Your task to perform on an android device: Open Chrome and go to settings Image 0: 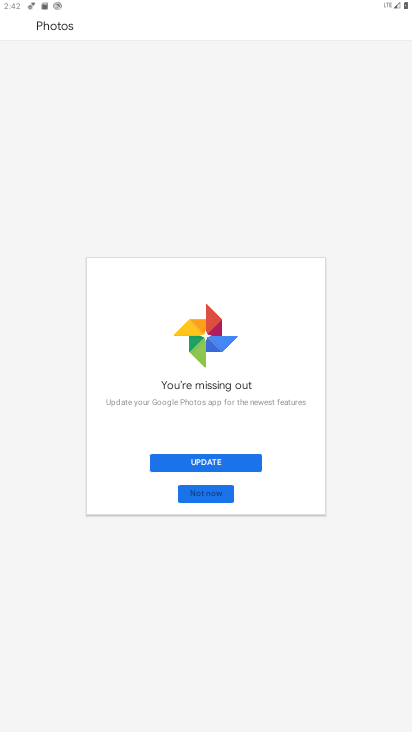
Step 0: press home button
Your task to perform on an android device: Open Chrome and go to settings Image 1: 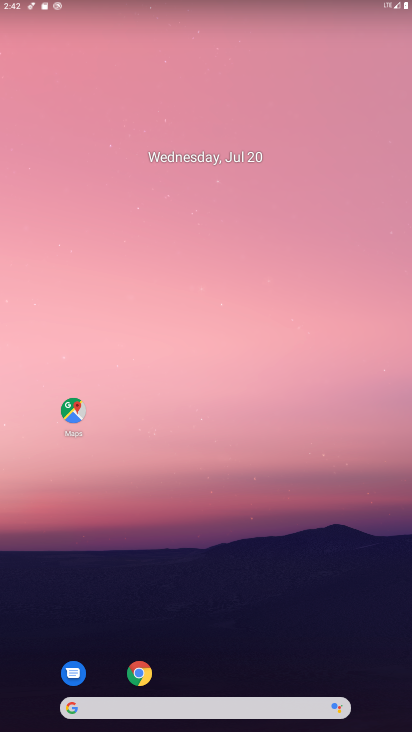
Step 1: click (142, 671)
Your task to perform on an android device: Open Chrome and go to settings Image 2: 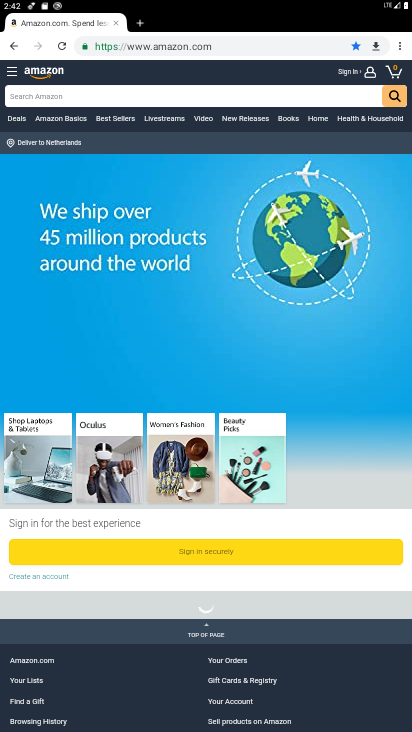
Step 2: click (395, 40)
Your task to perform on an android device: Open Chrome and go to settings Image 3: 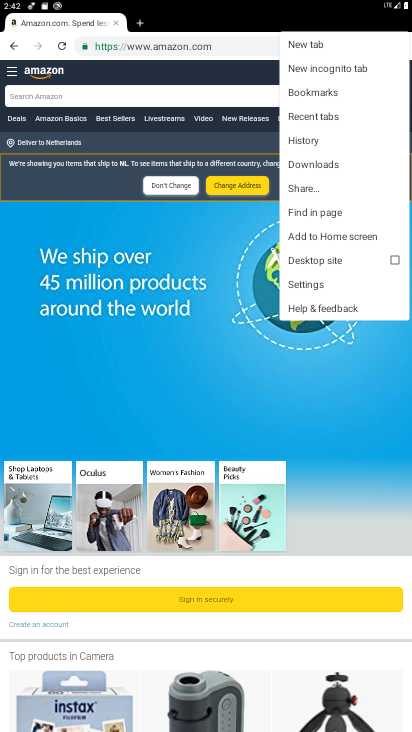
Step 3: click (301, 289)
Your task to perform on an android device: Open Chrome and go to settings Image 4: 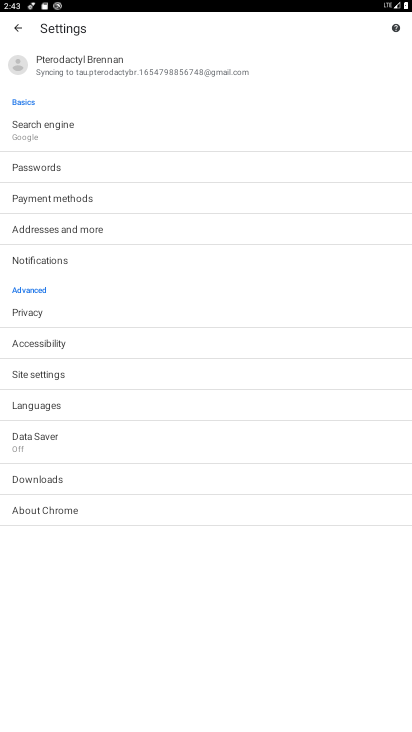
Step 4: task complete